Your task to perform on an android device: Open the web browser Image 0: 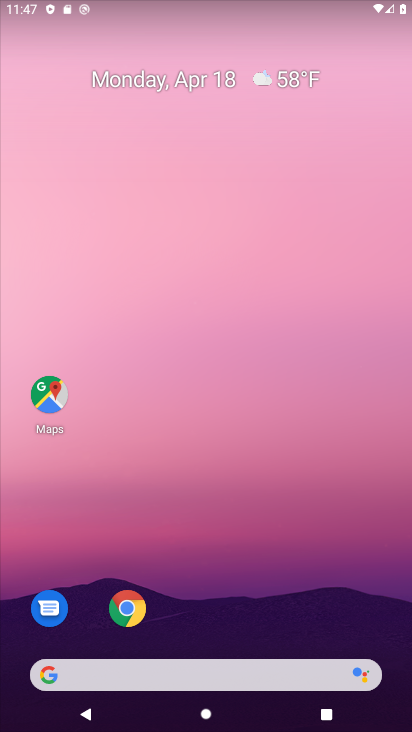
Step 0: drag from (261, 611) to (352, 8)
Your task to perform on an android device: Open the web browser Image 1: 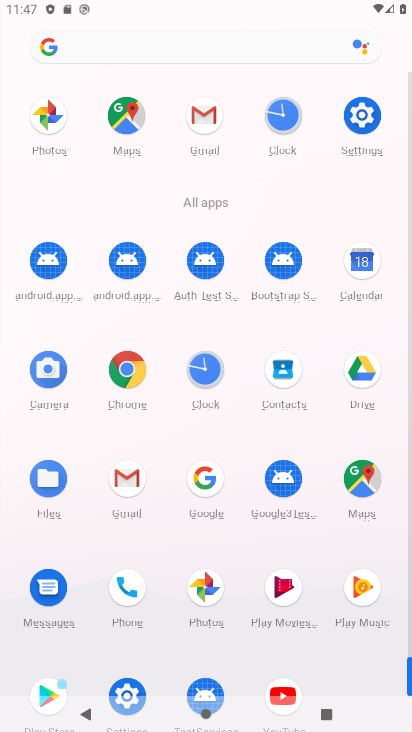
Step 1: click (129, 371)
Your task to perform on an android device: Open the web browser Image 2: 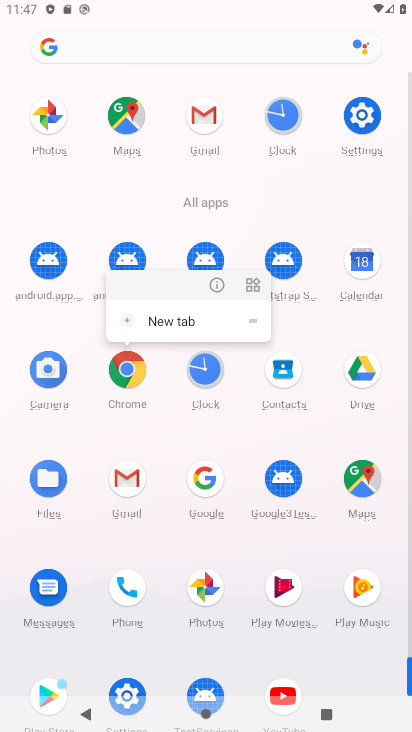
Step 2: click (121, 371)
Your task to perform on an android device: Open the web browser Image 3: 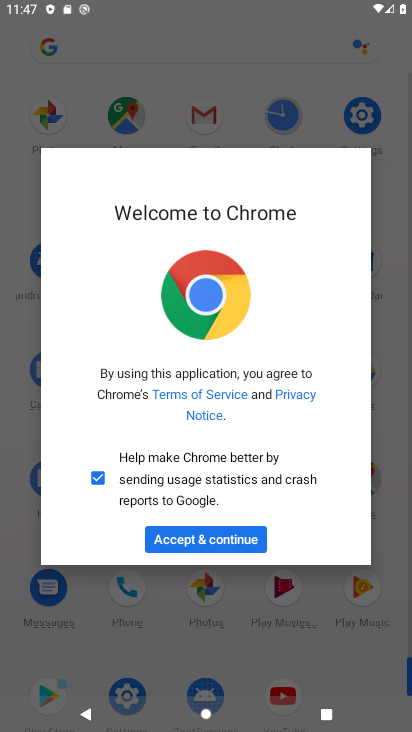
Step 3: click (206, 542)
Your task to perform on an android device: Open the web browser Image 4: 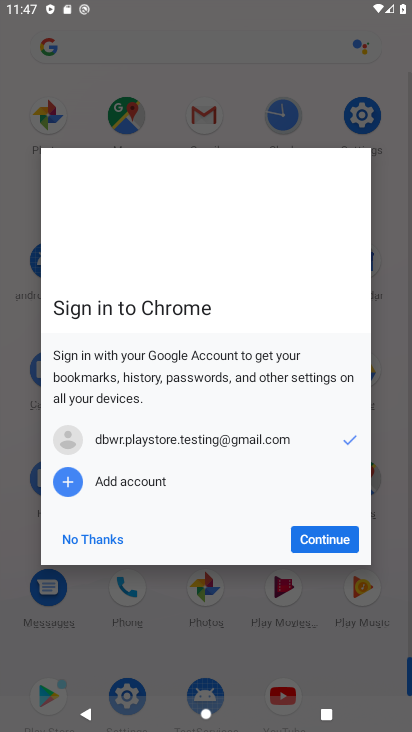
Step 4: click (324, 539)
Your task to perform on an android device: Open the web browser Image 5: 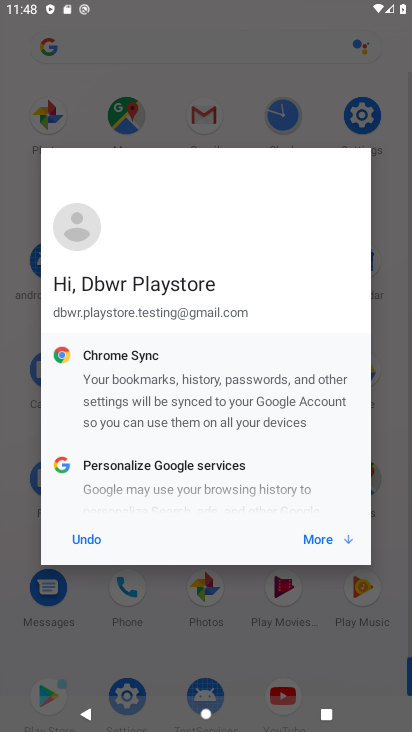
Step 5: click (330, 556)
Your task to perform on an android device: Open the web browser Image 6: 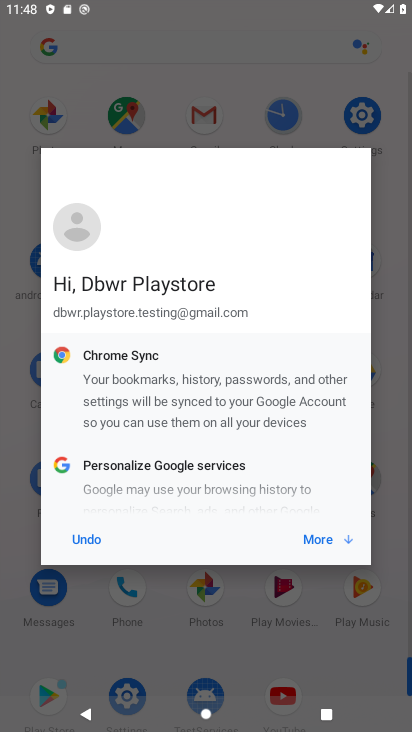
Step 6: click (329, 545)
Your task to perform on an android device: Open the web browser Image 7: 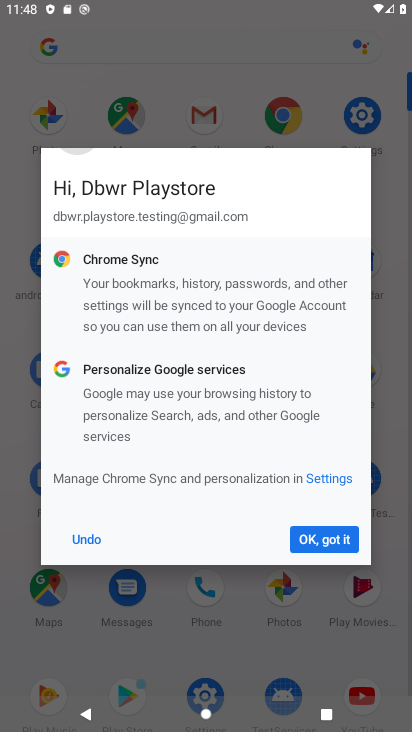
Step 7: click (329, 545)
Your task to perform on an android device: Open the web browser Image 8: 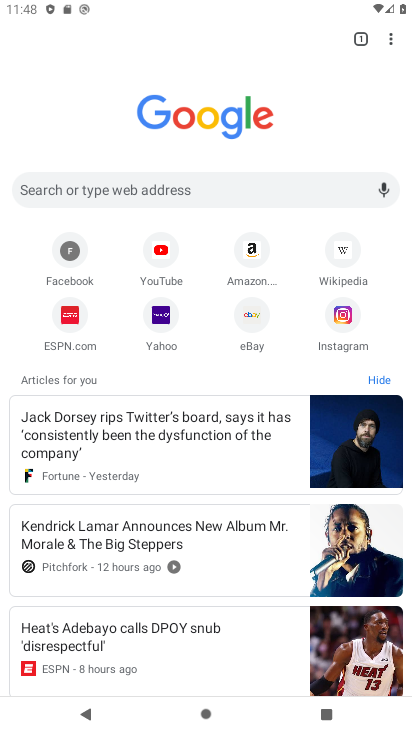
Step 8: task complete